Your task to perform on an android device: check android version Image 0: 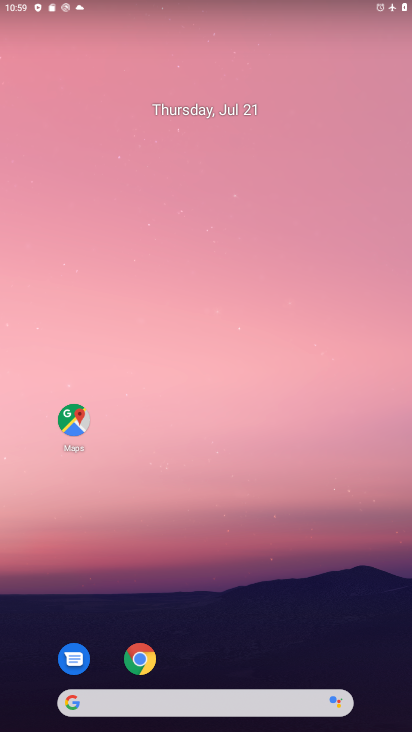
Step 0: drag from (194, 674) to (117, 47)
Your task to perform on an android device: check android version Image 1: 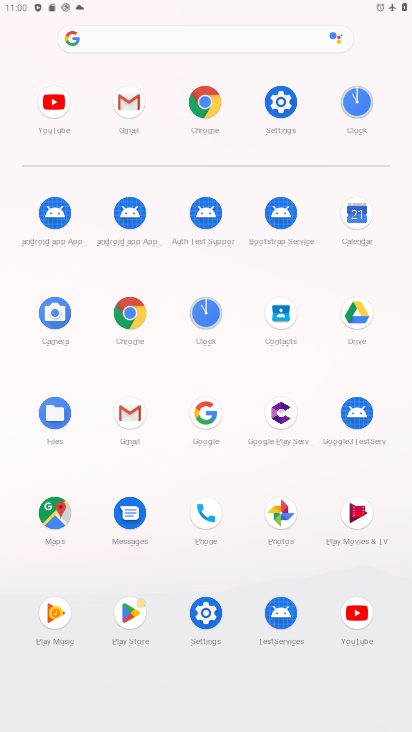
Step 1: click (299, 131)
Your task to perform on an android device: check android version Image 2: 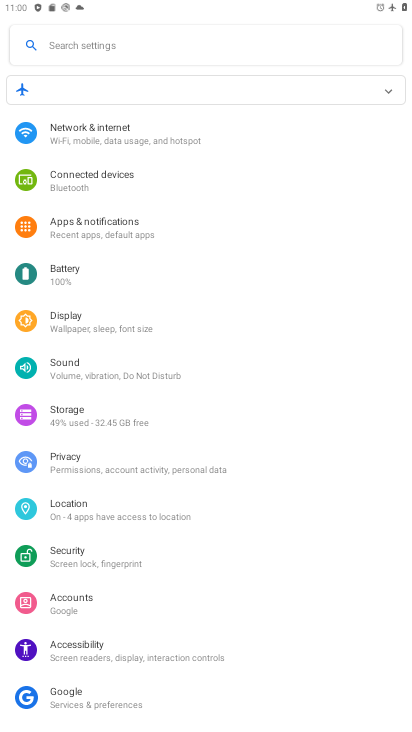
Step 2: task complete